Your task to perform on an android device: Go to Android settings Image 0: 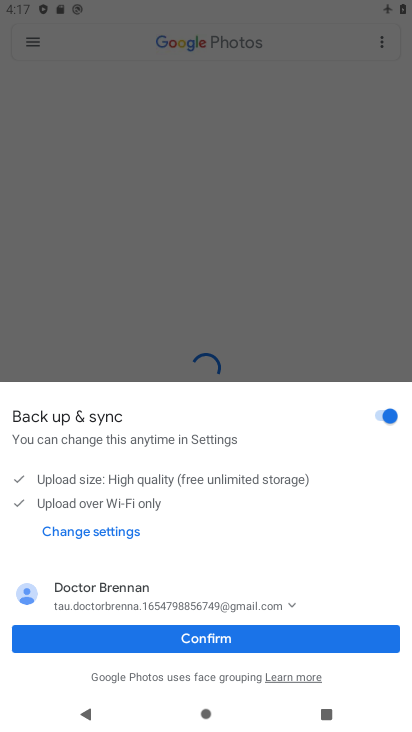
Step 0: press home button
Your task to perform on an android device: Go to Android settings Image 1: 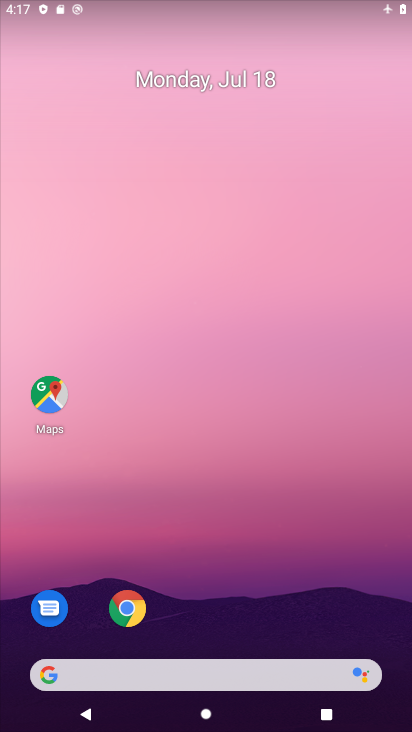
Step 1: drag from (255, 520) to (121, 0)
Your task to perform on an android device: Go to Android settings Image 2: 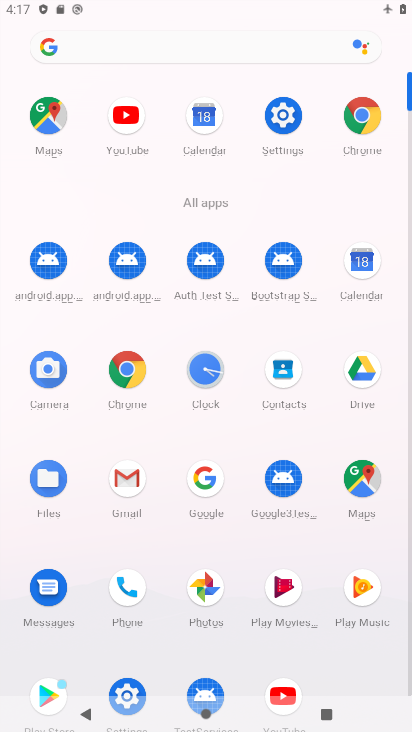
Step 2: click (295, 111)
Your task to perform on an android device: Go to Android settings Image 3: 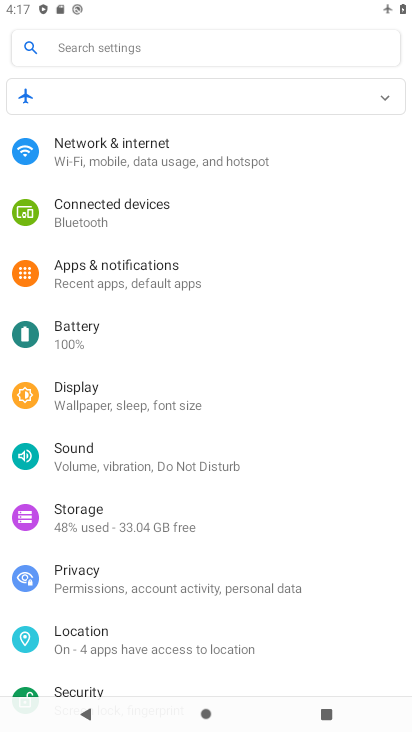
Step 3: task complete